Your task to perform on an android device: remove spam from my inbox in the gmail app Image 0: 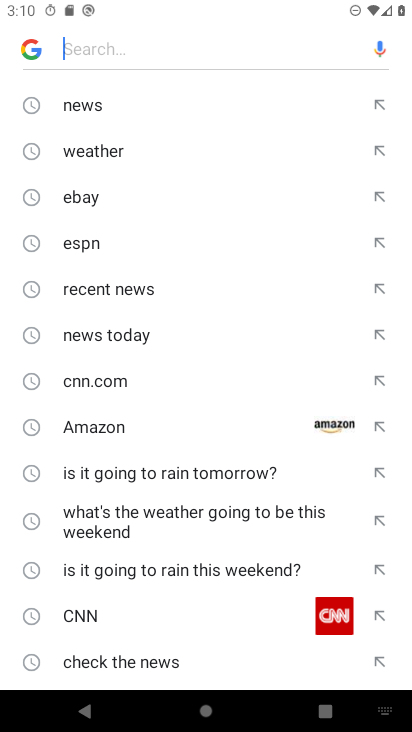
Step 0: press back button
Your task to perform on an android device: remove spam from my inbox in the gmail app Image 1: 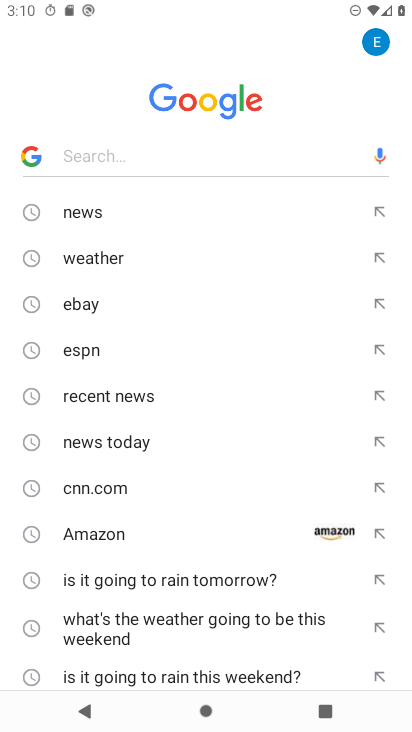
Step 1: press back button
Your task to perform on an android device: remove spam from my inbox in the gmail app Image 2: 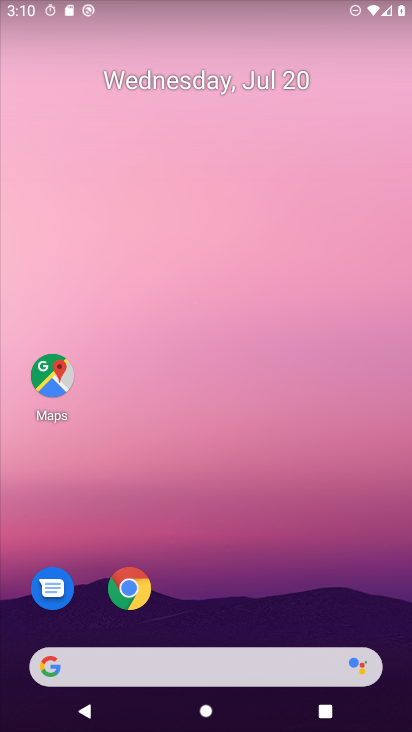
Step 2: drag from (190, 616) to (97, 128)
Your task to perform on an android device: remove spam from my inbox in the gmail app Image 3: 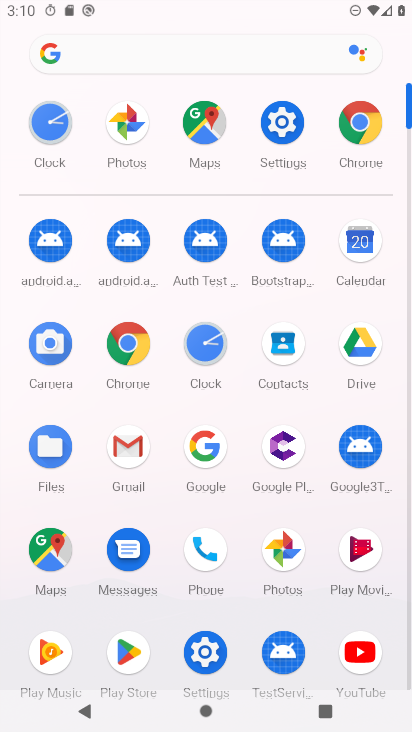
Step 3: click (134, 440)
Your task to perform on an android device: remove spam from my inbox in the gmail app Image 4: 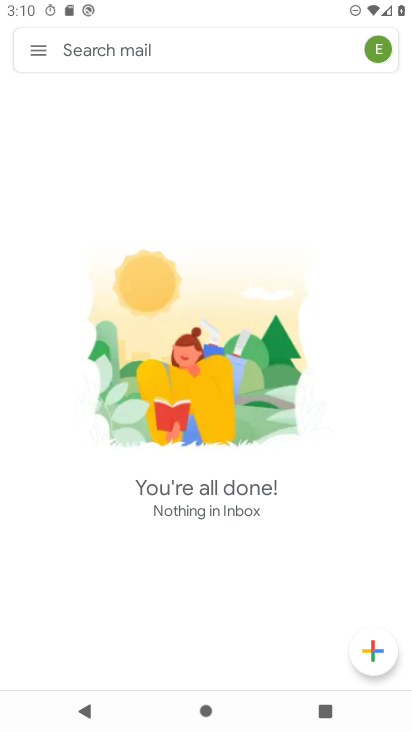
Step 4: click (24, 55)
Your task to perform on an android device: remove spam from my inbox in the gmail app Image 5: 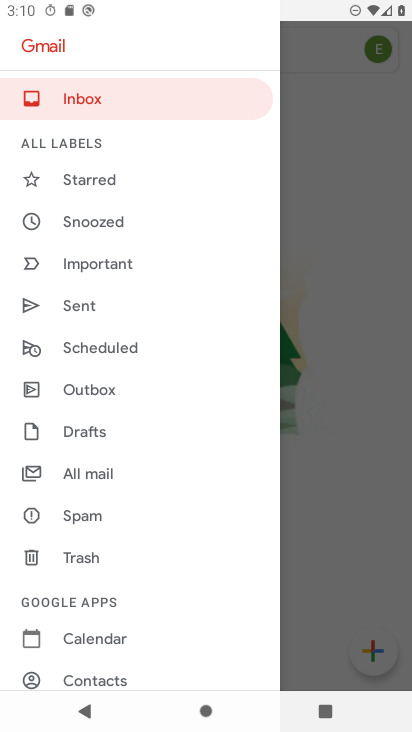
Step 5: click (82, 510)
Your task to perform on an android device: remove spam from my inbox in the gmail app Image 6: 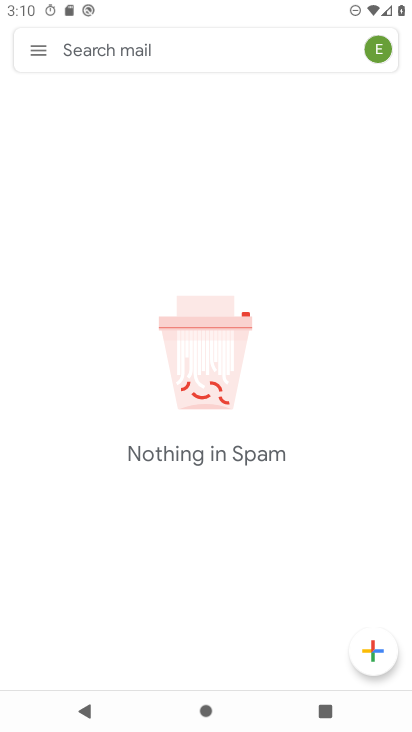
Step 6: task complete